Your task to perform on an android device: Clear the cart on target.com. Search for "usb-b" on target.com, select the first entry, and add it to the cart. Image 0: 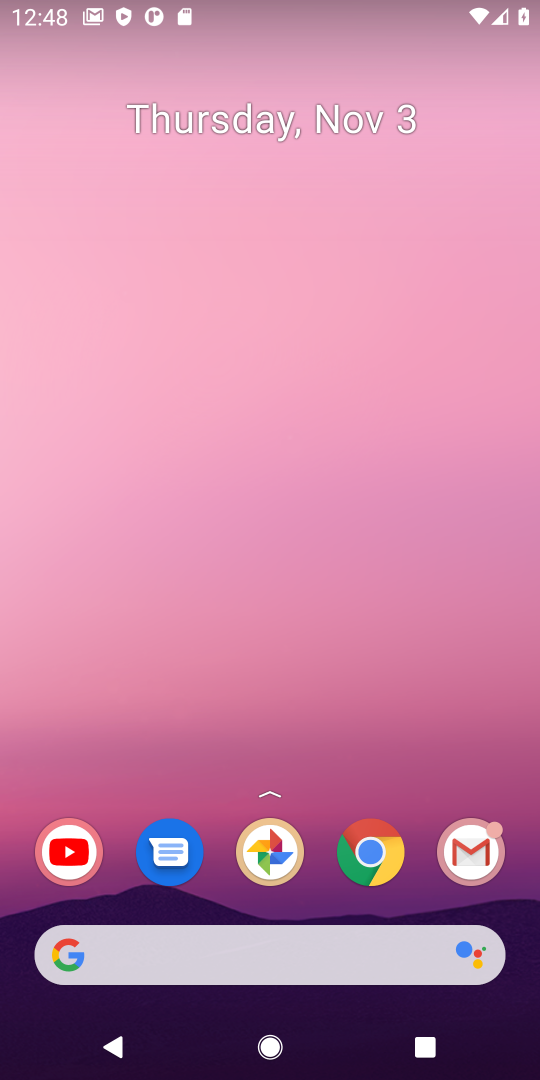
Step 0: click (372, 867)
Your task to perform on an android device: Clear the cart on target.com. Search for "usb-b" on target.com, select the first entry, and add it to the cart. Image 1: 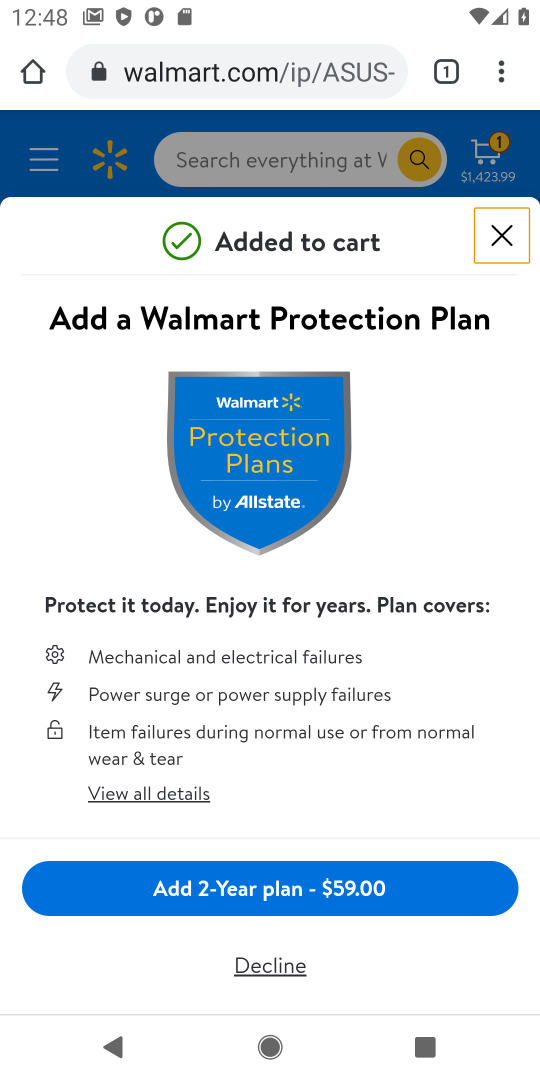
Step 1: click (212, 71)
Your task to perform on an android device: Clear the cart on target.com. Search for "usb-b" on target.com, select the first entry, and add it to the cart. Image 2: 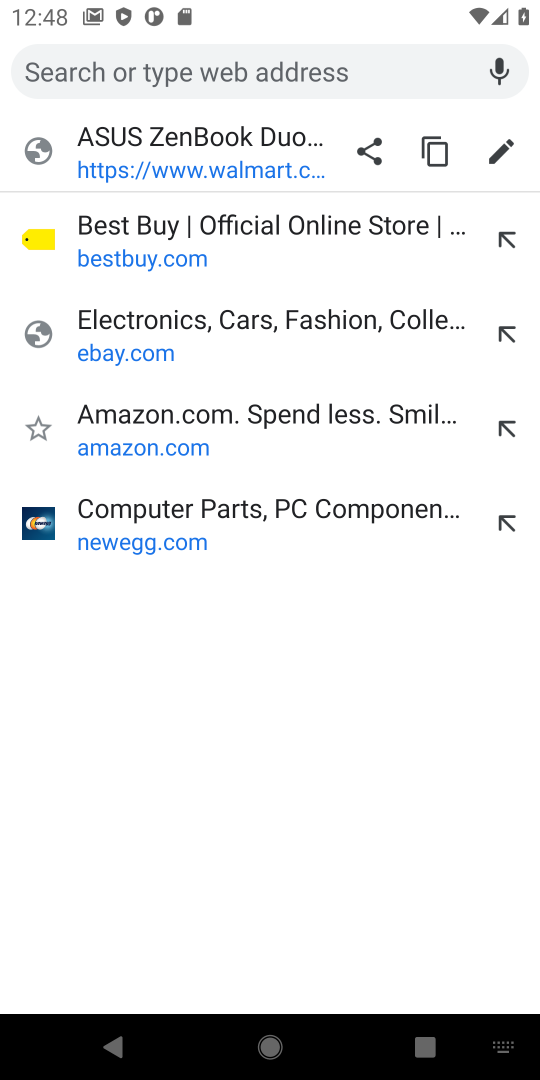
Step 2: type "target.com"
Your task to perform on an android device: Clear the cart on target.com. Search for "usb-b" on target.com, select the first entry, and add it to the cart. Image 3: 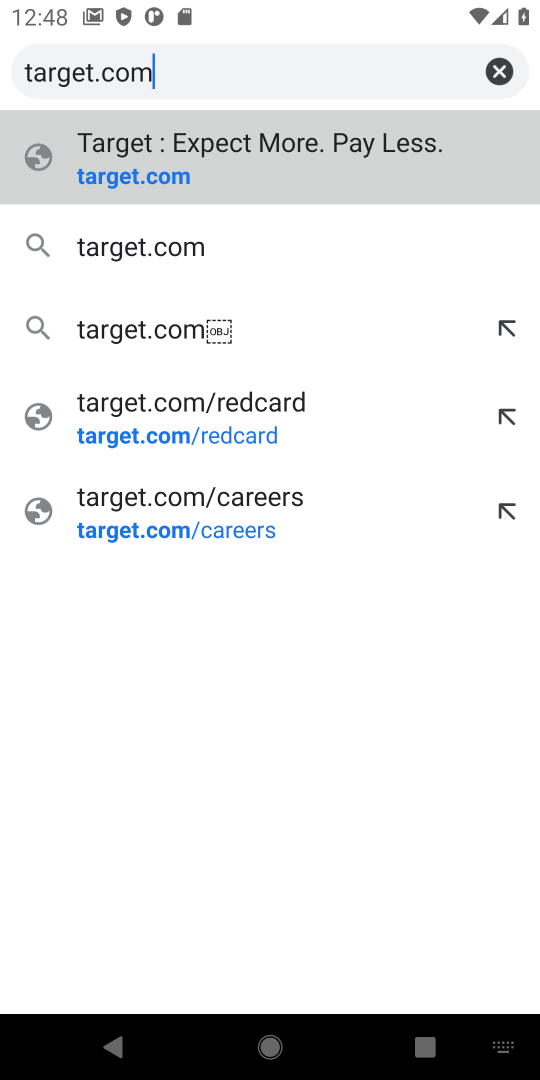
Step 3: click (106, 183)
Your task to perform on an android device: Clear the cart on target.com. Search for "usb-b" on target.com, select the first entry, and add it to the cart. Image 4: 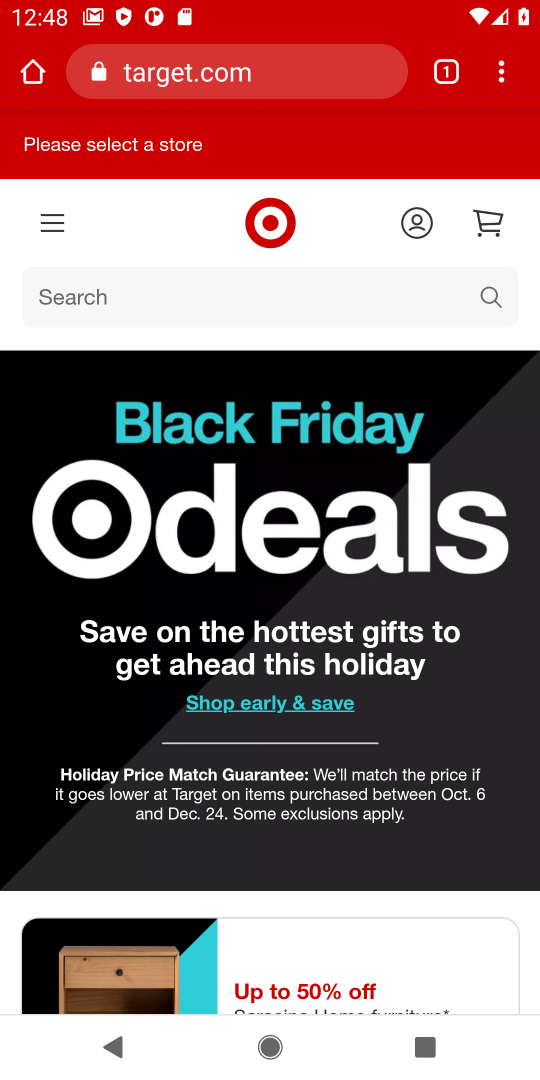
Step 4: click (483, 298)
Your task to perform on an android device: Clear the cart on target.com. Search for "usb-b" on target.com, select the first entry, and add it to the cart. Image 5: 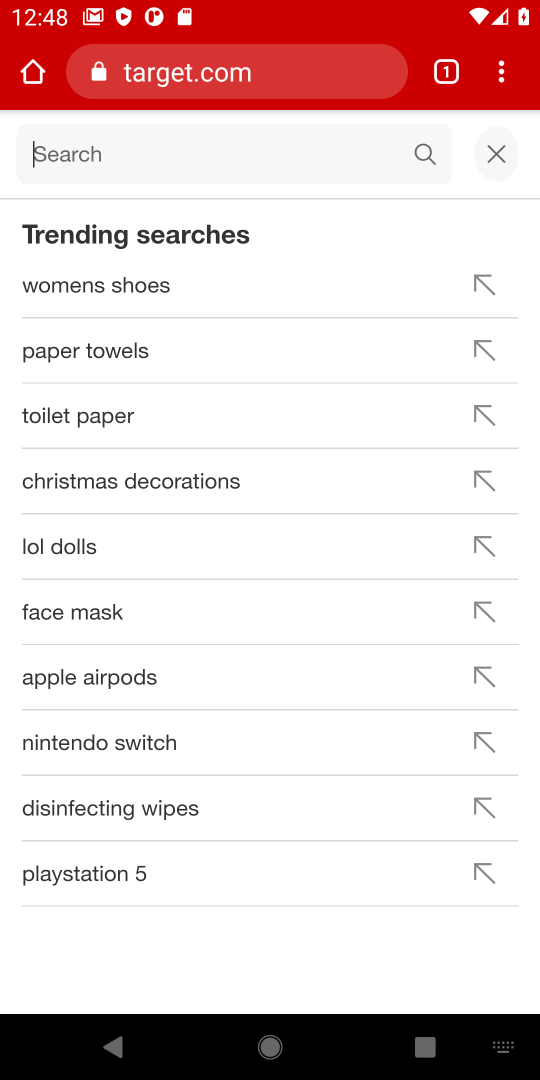
Step 5: type "usb-b"
Your task to perform on an android device: Clear the cart on target.com. Search for "usb-b" on target.com, select the first entry, and add it to the cart. Image 6: 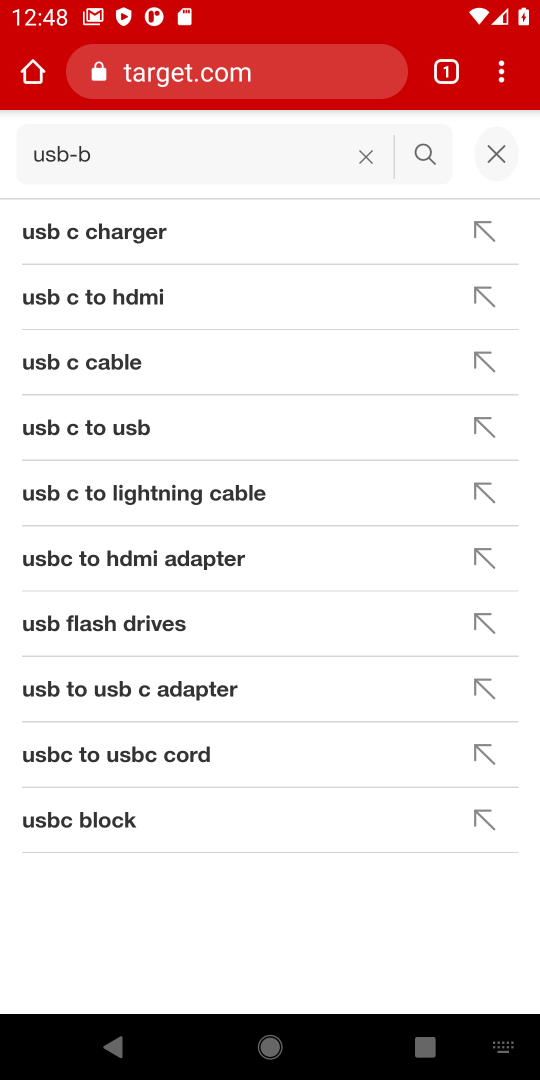
Step 6: click (491, 149)
Your task to perform on an android device: Clear the cart on target.com. Search for "usb-b" on target.com, select the first entry, and add it to the cart. Image 7: 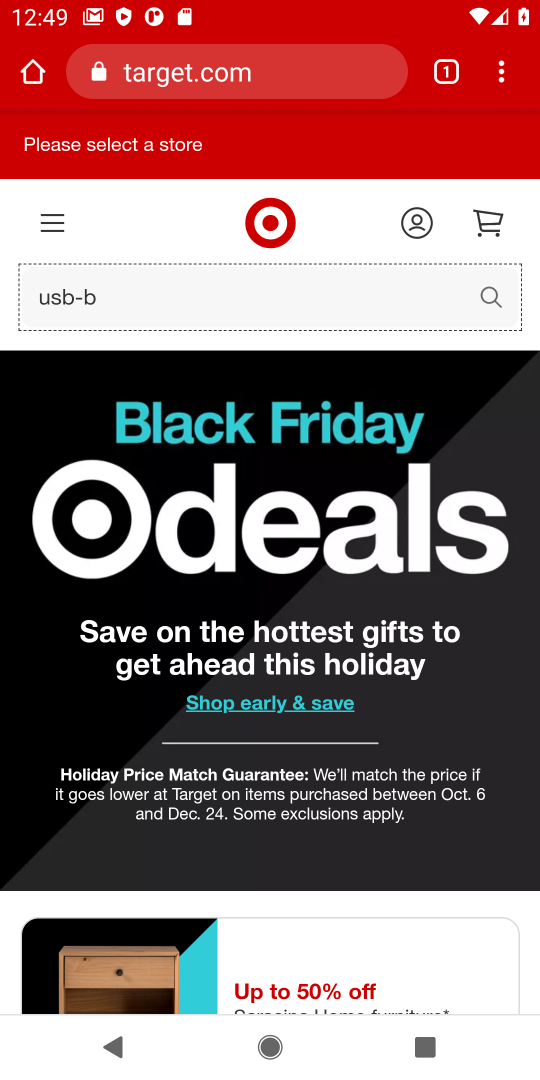
Step 7: click (480, 218)
Your task to perform on an android device: Clear the cart on target.com. Search for "usb-b" on target.com, select the first entry, and add it to the cart. Image 8: 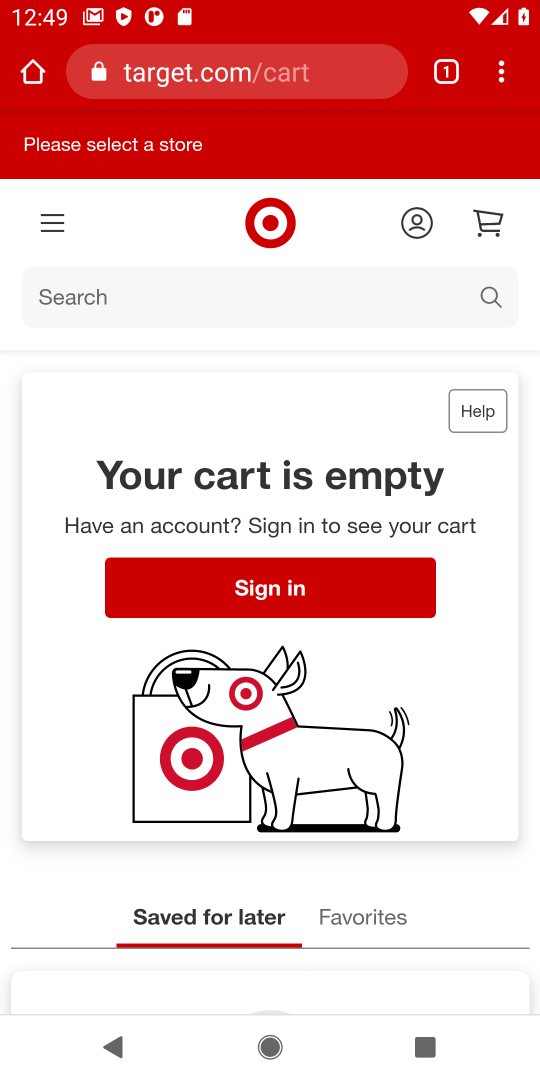
Step 8: click (491, 302)
Your task to perform on an android device: Clear the cart on target.com. Search for "usb-b" on target.com, select the first entry, and add it to the cart. Image 9: 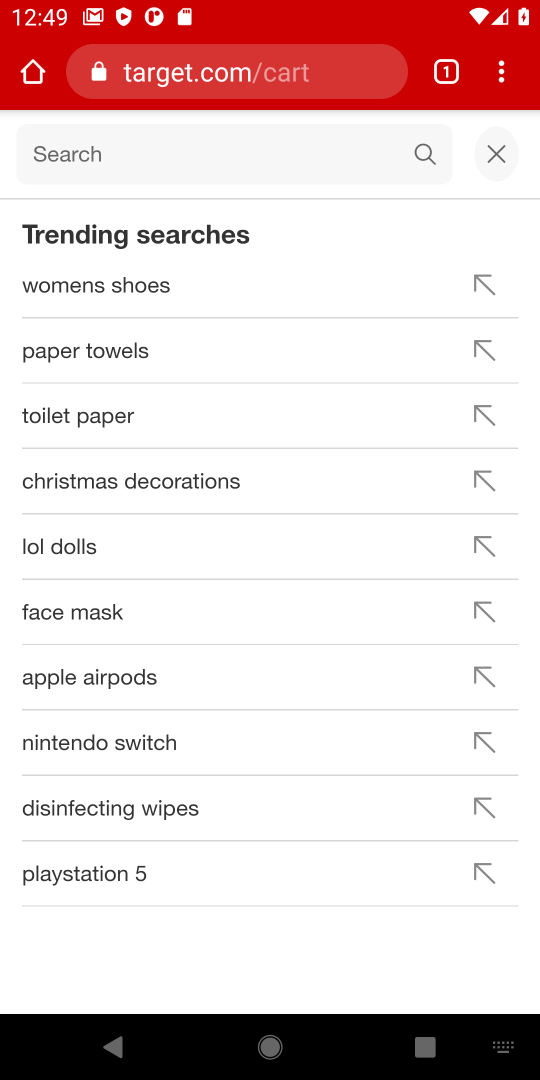
Step 9: click (77, 151)
Your task to perform on an android device: Clear the cart on target.com. Search for "usb-b" on target.com, select the first entry, and add it to the cart. Image 10: 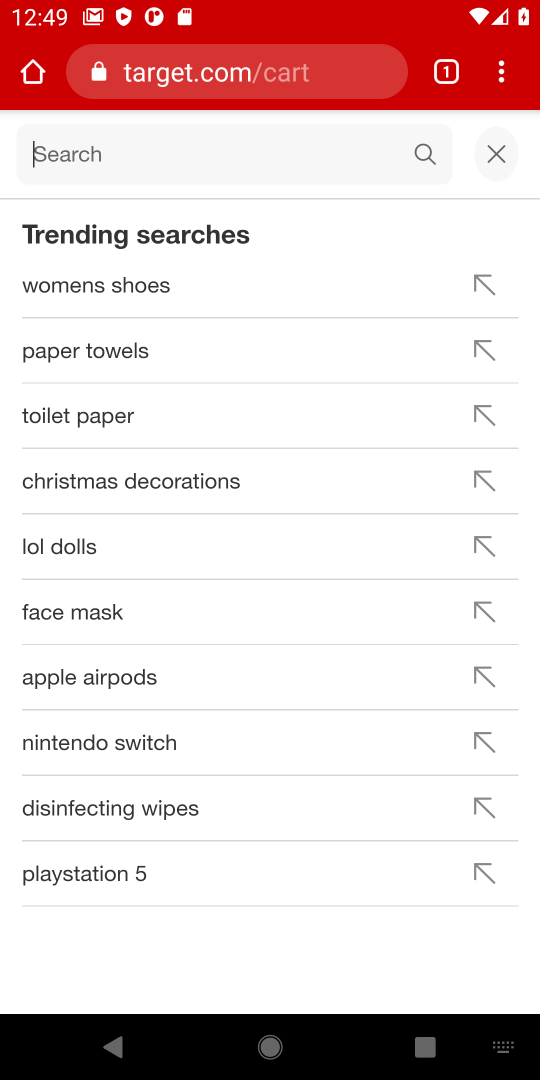
Step 10: type "usb-b"
Your task to perform on an android device: Clear the cart on target.com. Search for "usb-b" on target.com, select the first entry, and add it to the cart. Image 11: 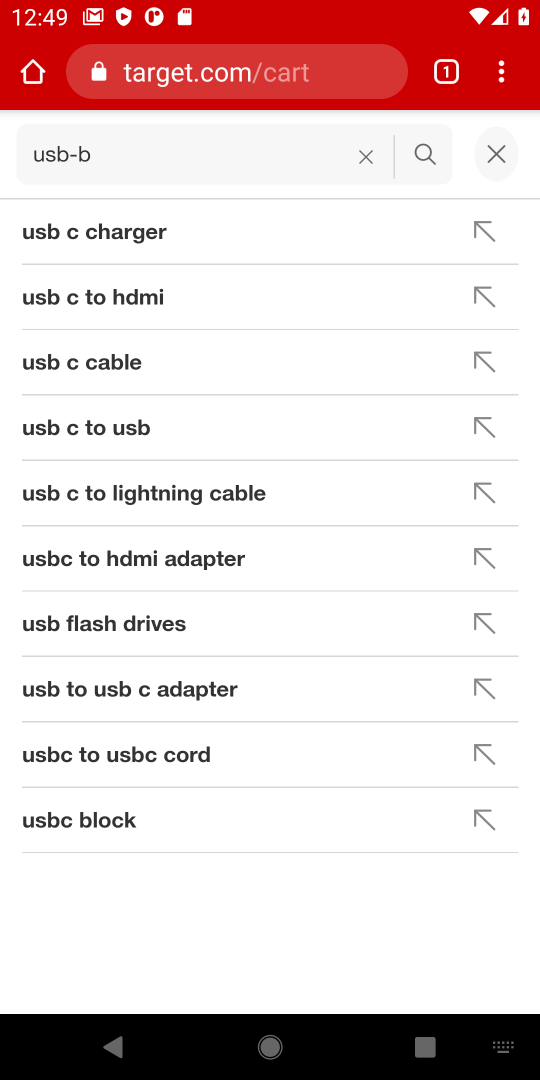
Step 11: click (410, 154)
Your task to perform on an android device: Clear the cart on target.com. Search for "usb-b" on target.com, select the first entry, and add it to the cart. Image 12: 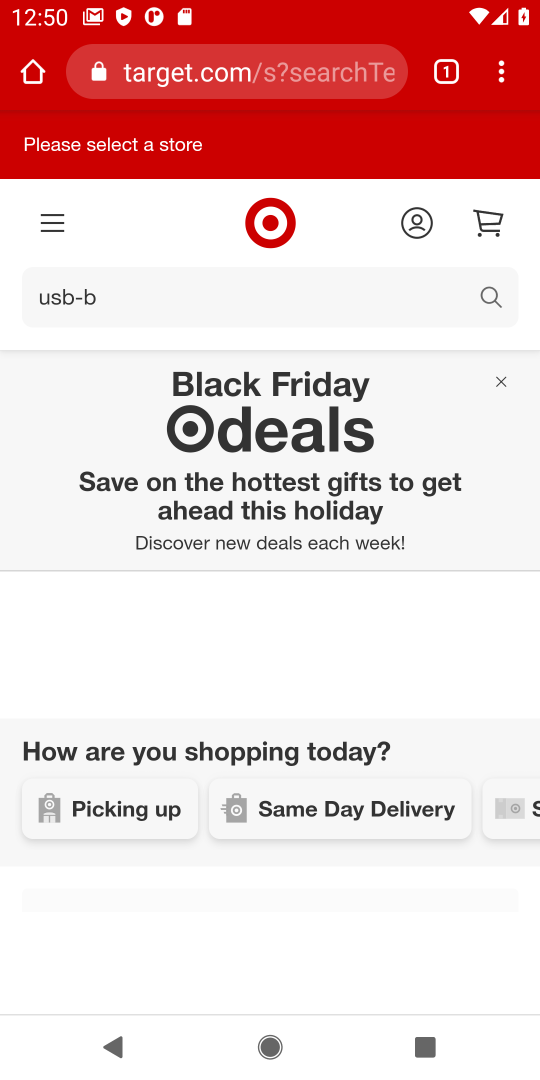
Step 12: task complete